Your task to perform on an android device: Open the phone app and click the voicemail tab. Image 0: 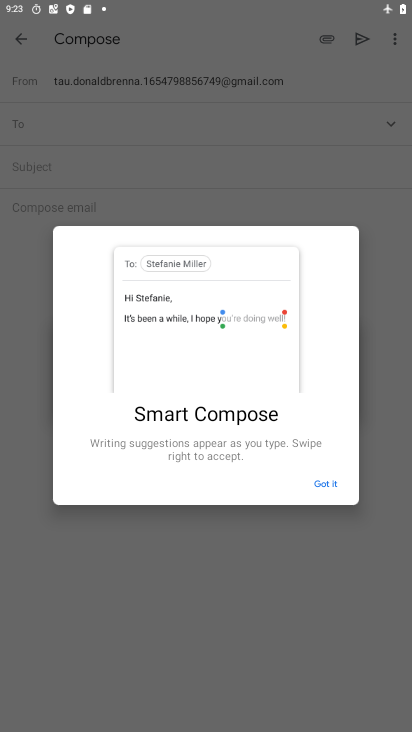
Step 0: press home button
Your task to perform on an android device: Open the phone app and click the voicemail tab. Image 1: 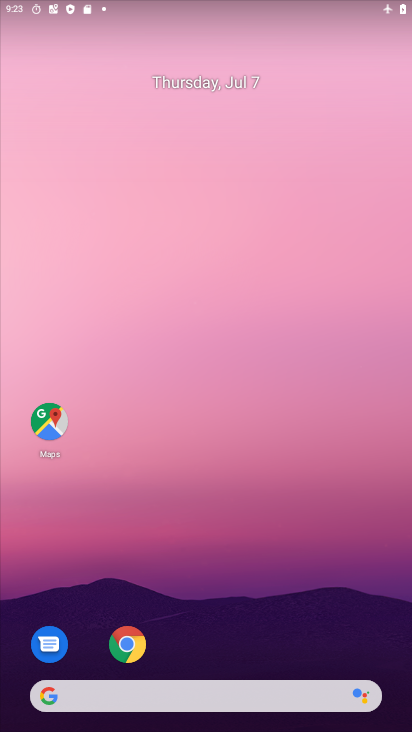
Step 1: drag from (3, 484) to (359, 593)
Your task to perform on an android device: Open the phone app and click the voicemail tab. Image 2: 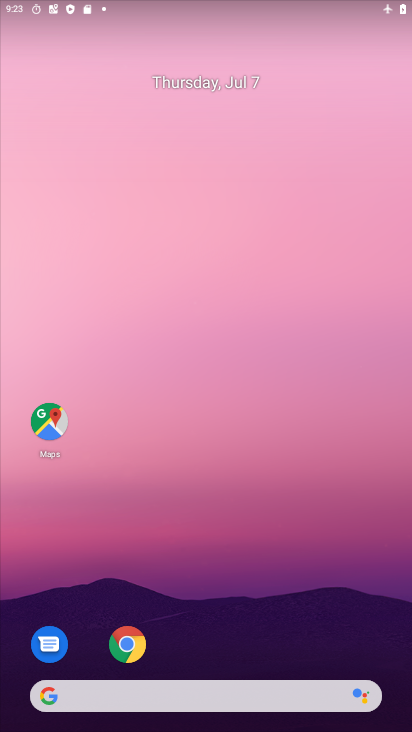
Step 2: drag from (252, 449) to (264, 82)
Your task to perform on an android device: Open the phone app and click the voicemail tab. Image 3: 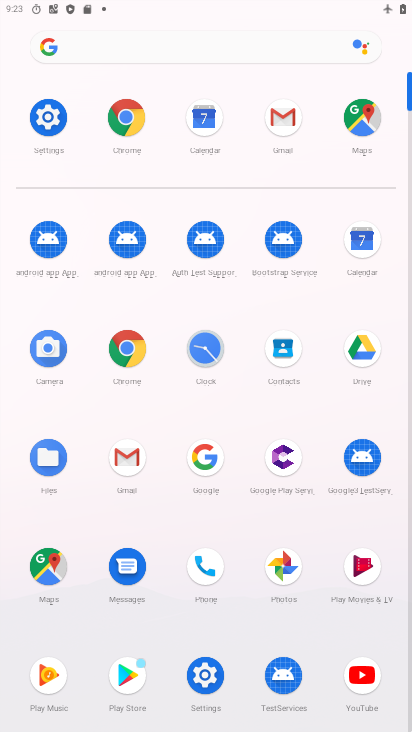
Step 3: click (213, 573)
Your task to perform on an android device: Open the phone app and click the voicemail tab. Image 4: 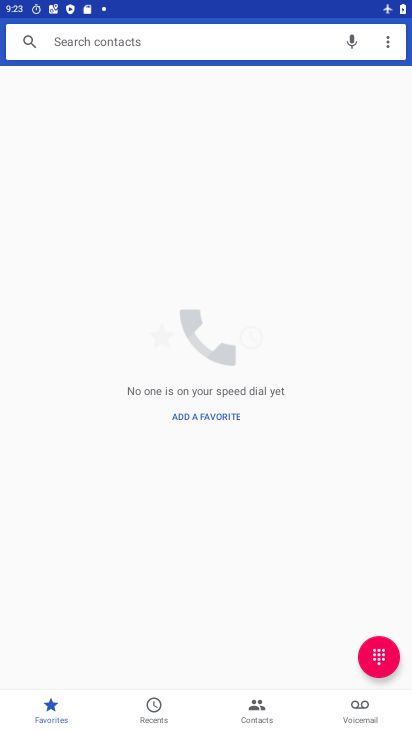
Step 4: click (370, 705)
Your task to perform on an android device: Open the phone app and click the voicemail tab. Image 5: 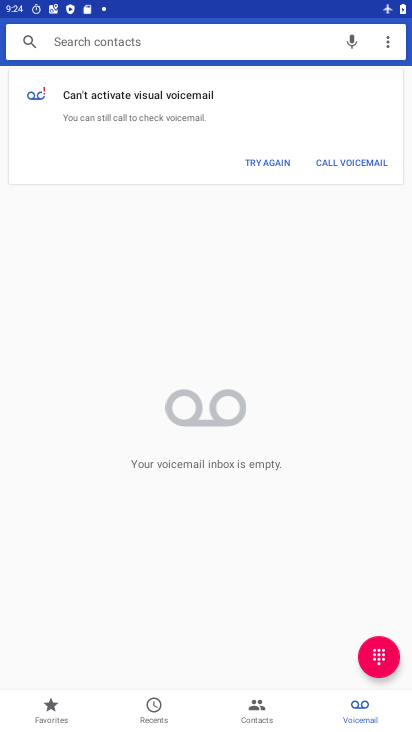
Step 5: task complete